Your task to perform on an android device: empty trash in the gmail app Image 0: 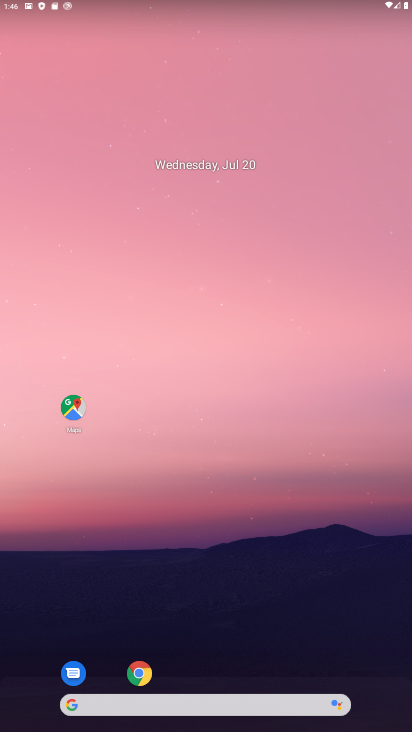
Step 0: drag from (181, 675) to (189, 141)
Your task to perform on an android device: empty trash in the gmail app Image 1: 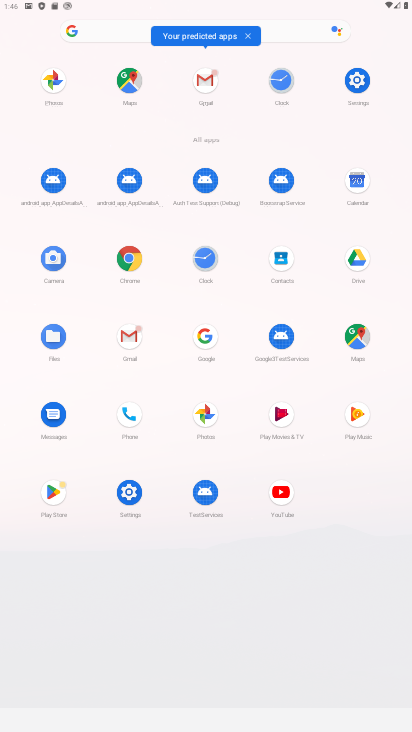
Step 1: click (122, 336)
Your task to perform on an android device: empty trash in the gmail app Image 2: 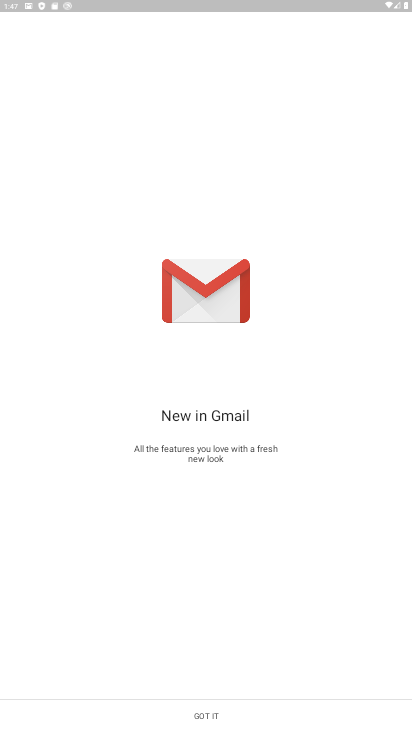
Step 2: click (218, 713)
Your task to perform on an android device: empty trash in the gmail app Image 3: 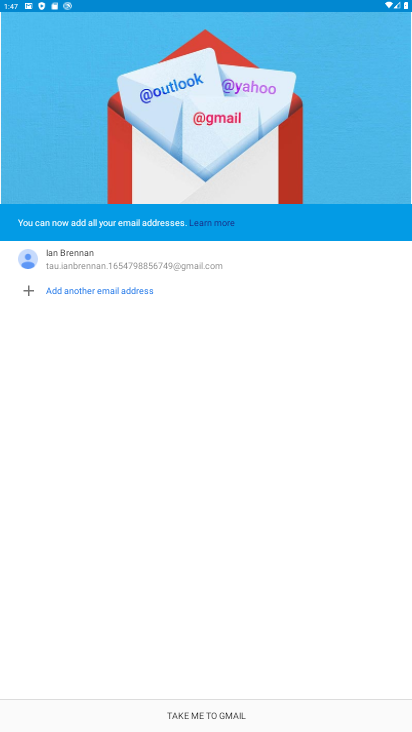
Step 3: click (195, 713)
Your task to perform on an android device: empty trash in the gmail app Image 4: 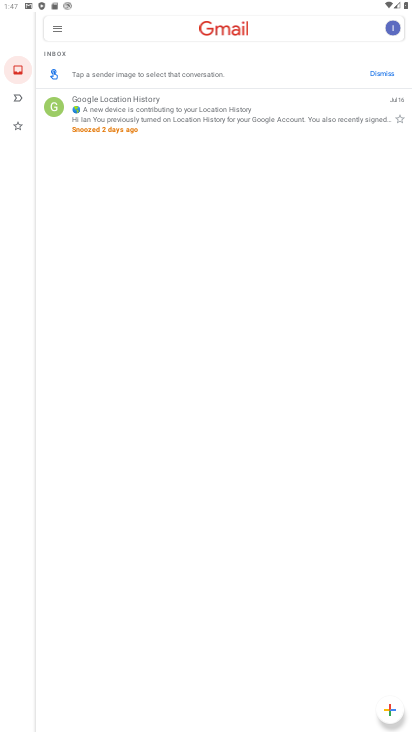
Step 4: click (58, 31)
Your task to perform on an android device: empty trash in the gmail app Image 5: 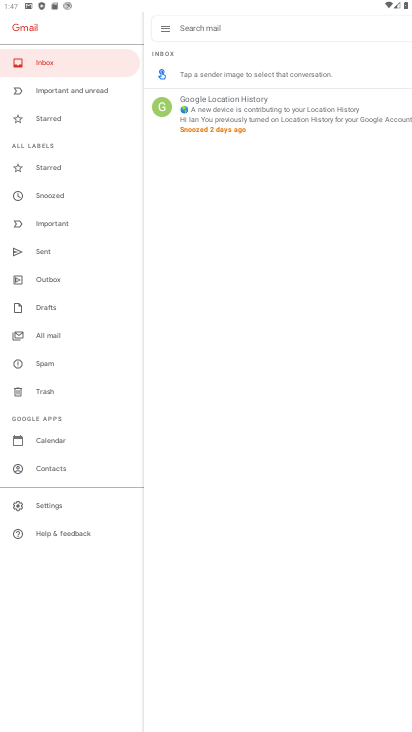
Step 5: click (55, 397)
Your task to perform on an android device: empty trash in the gmail app Image 6: 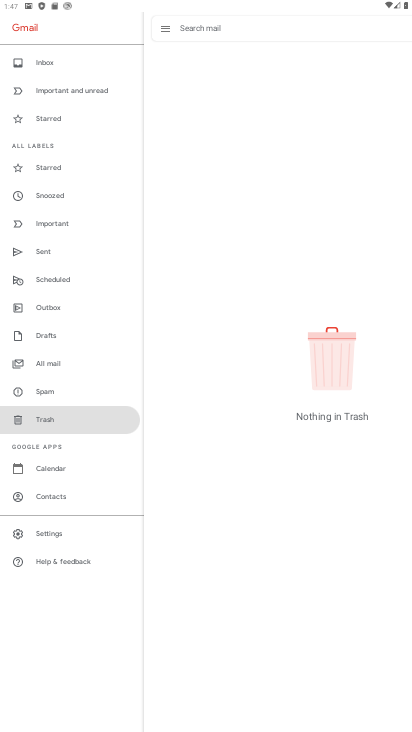
Step 6: task complete